Your task to perform on an android device: turn on bluetooth scan Image 0: 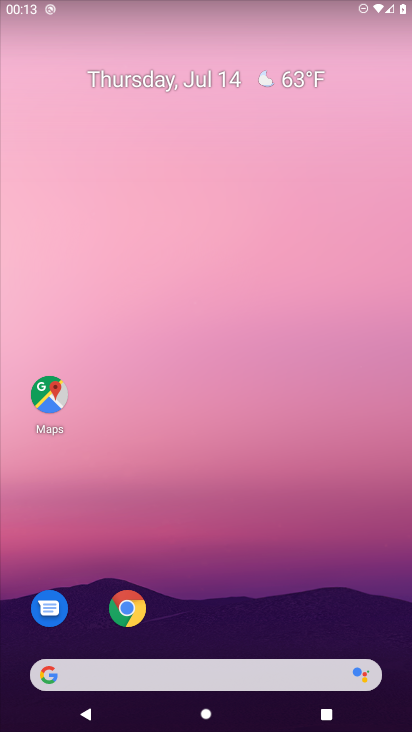
Step 0: press home button
Your task to perform on an android device: turn on bluetooth scan Image 1: 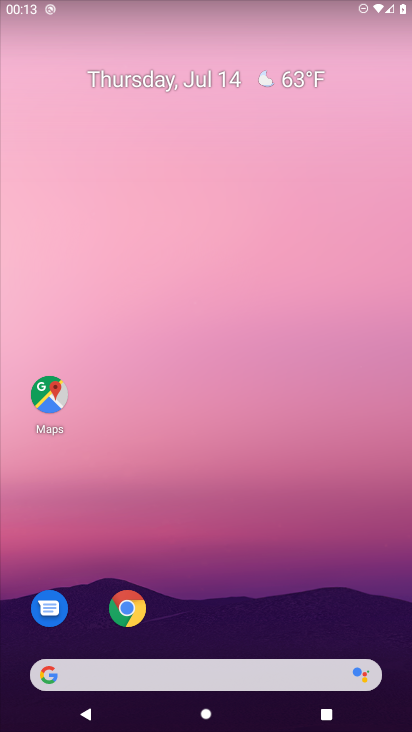
Step 1: drag from (249, 637) to (267, 223)
Your task to perform on an android device: turn on bluetooth scan Image 2: 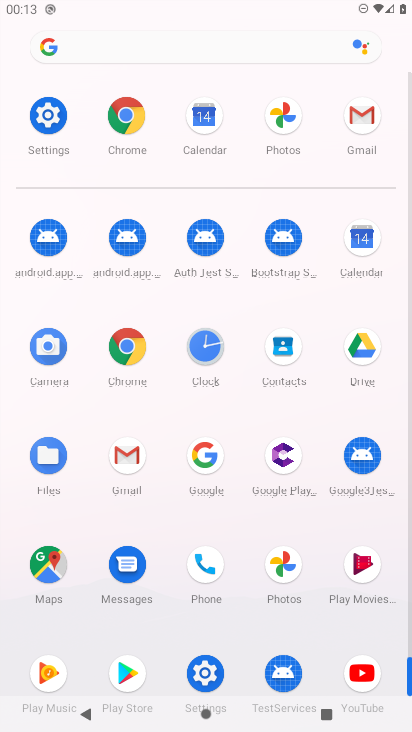
Step 2: click (35, 119)
Your task to perform on an android device: turn on bluetooth scan Image 3: 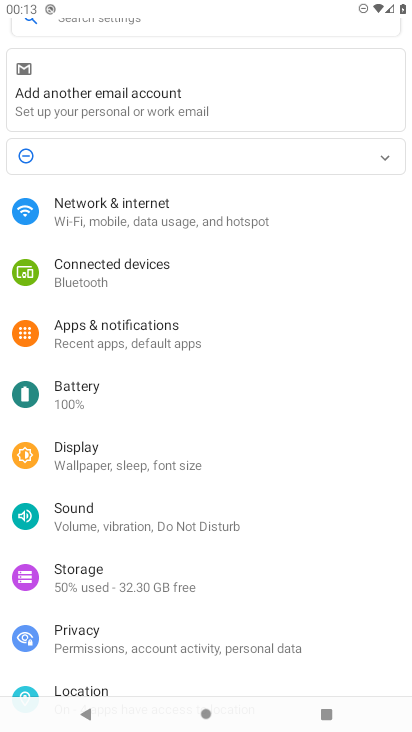
Step 3: click (82, 695)
Your task to perform on an android device: turn on bluetooth scan Image 4: 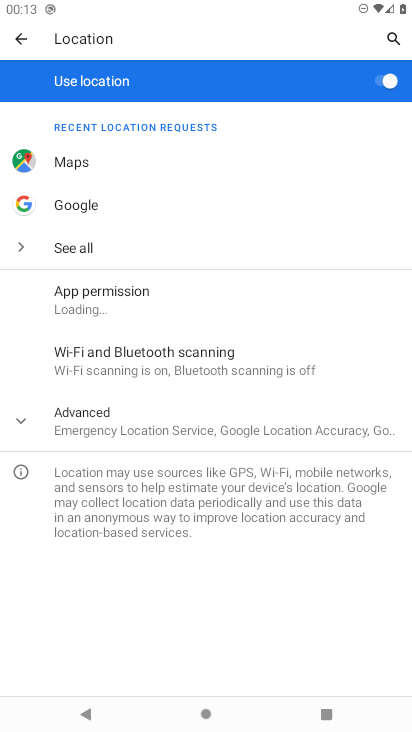
Step 4: click (87, 340)
Your task to perform on an android device: turn on bluetooth scan Image 5: 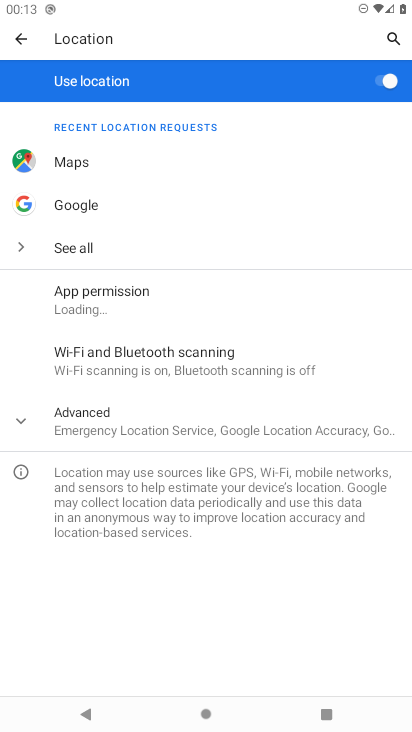
Step 5: click (96, 348)
Your task to perform on an android device: turn on bluetooth scan Image 6: 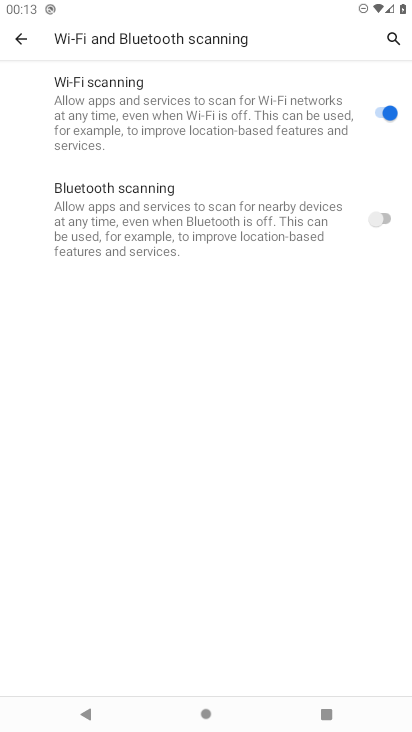
Step 6: click (381, 216)
Your task to perform on an android device: turn on bluetooth scan Image 7: 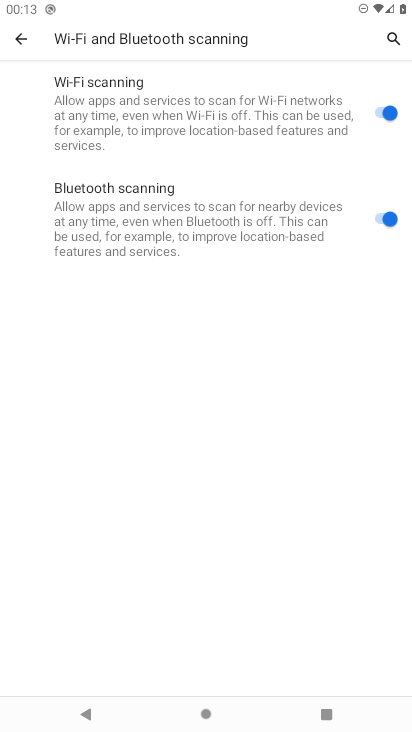
Step 7: task complete